Your task to perform on an android device: turn on javascript in the chrome app Image 0: 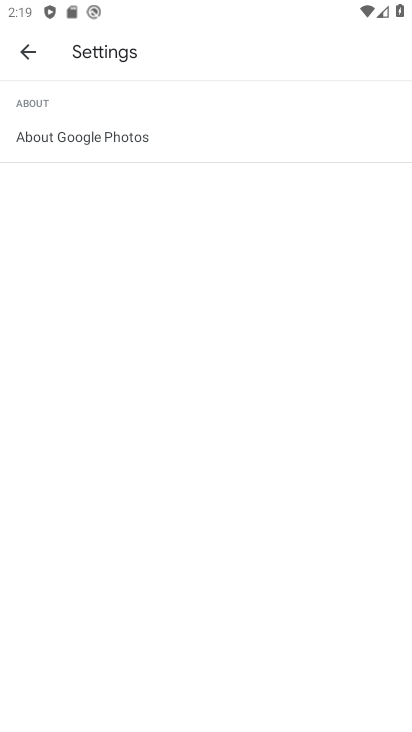
Step 0: press home button
Your task to perform on an android device: turn on javascript in the chrome app Image 1: 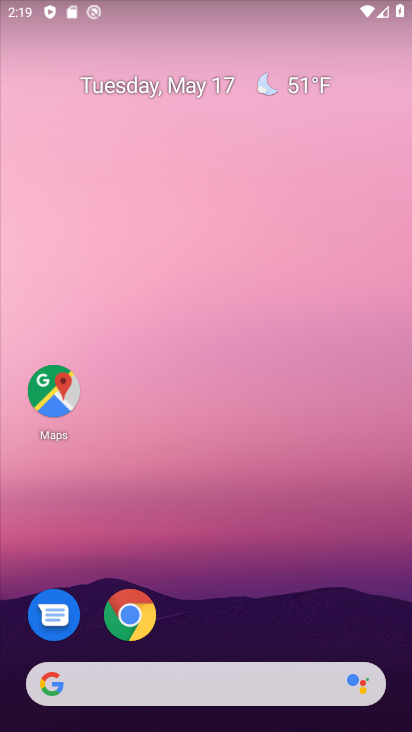
Step 1: click (130, 607)
Your task to perform on an android device: turn on javascript in the chrome app Image 2: 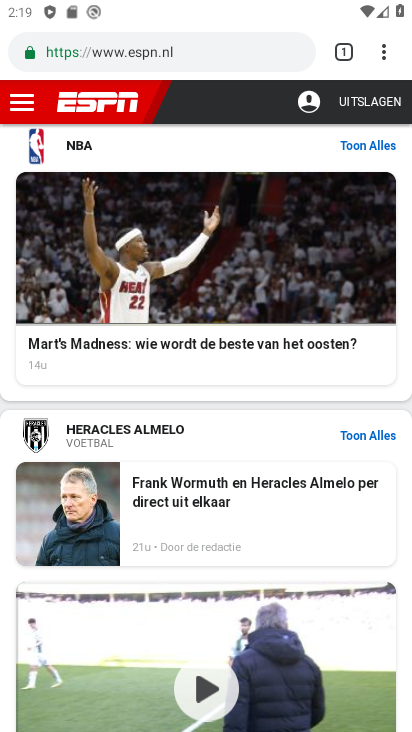
Step 2: click (384, 49)
Your task to perform on an android device: turn on javascript in the chrome app Image 3: 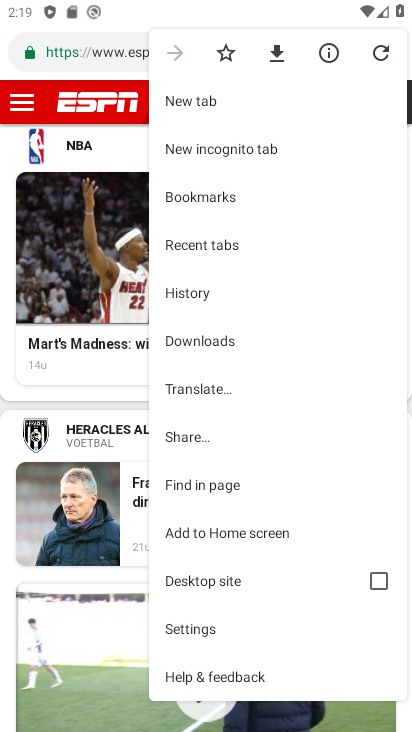
Step 3: click (224, 623)
Your task to perform on an android device: turn on javascript in the chrome app Image 4: 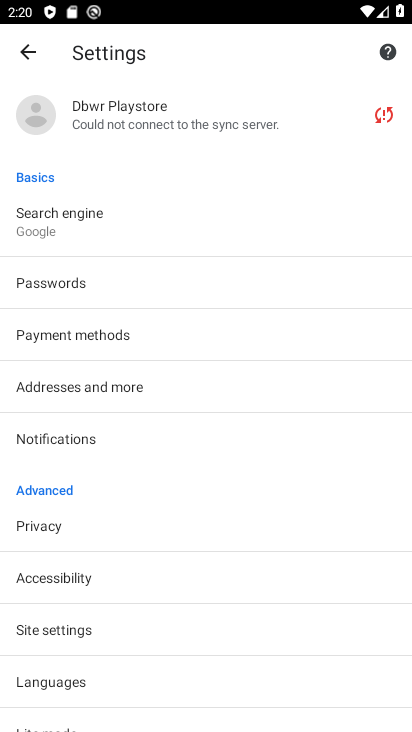
Step 4: click (101, 626)
Your task to perform on an android device: turn on javascript in the chrome app Image 5: 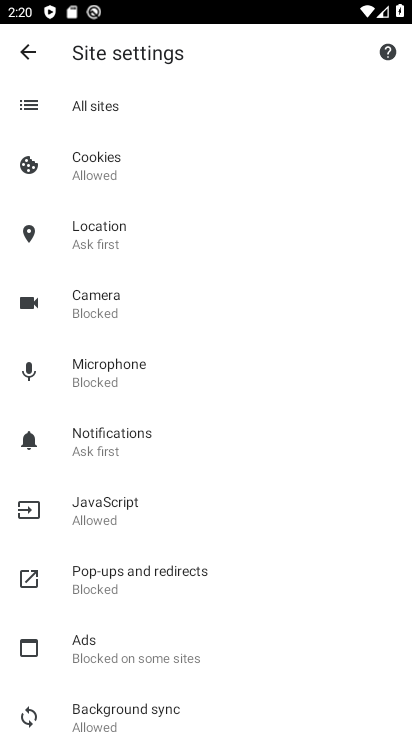
Step 5: click (120, 510)
Your task to perform on an android device: turn on javascript in the chrome app Image 6: 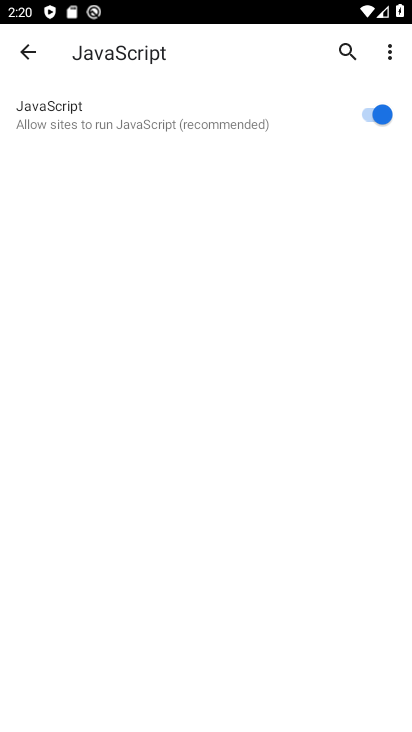
Step 6: task complete